Your task to perform on an android device: read, delete, or share a saved page in the chrome app Image 0: 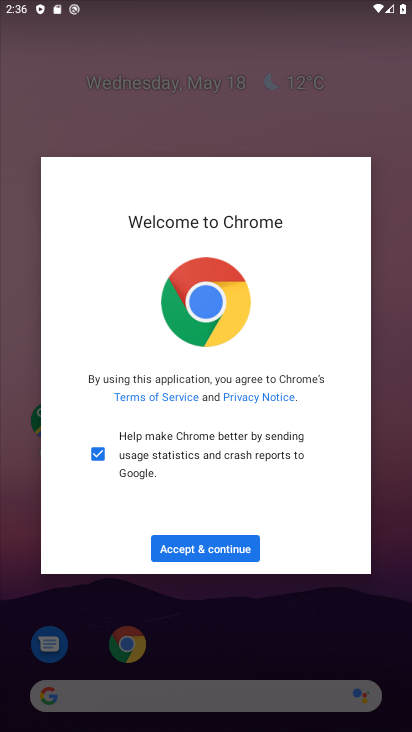
Step 0: click (216, 554)
Your task to perform on an android device: read, delete, or share a saved page in the chrome app Image 1: 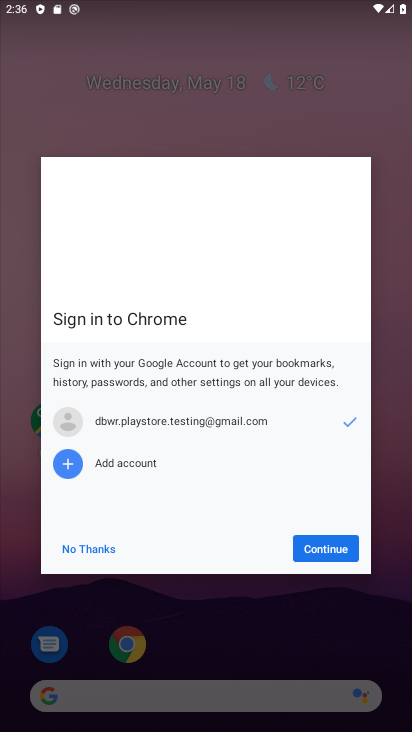
Step 1: click (319, 544)
Your task to perform on an android device: read, delete, or share a saved page in the chrome app Image 2: 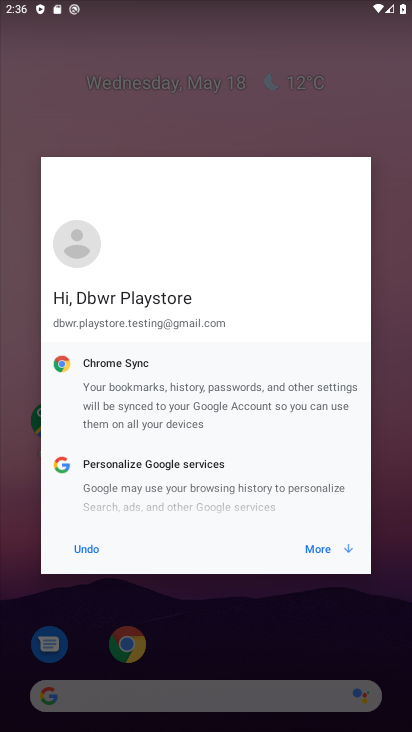
Step 2: click (318, 545)
Your task to perform on an android device: read, delete, or share a saved page in the chrome app Image 3: 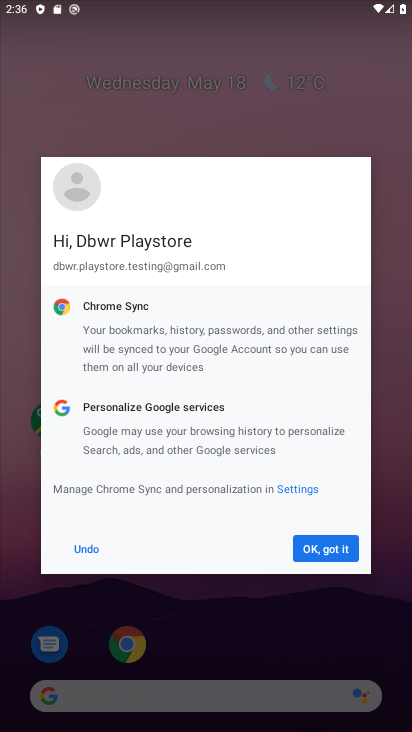
Step 3: click (318, 545)
Your task to perform on an android device: read, delete, or share a saved page in the chrome app Image 4: 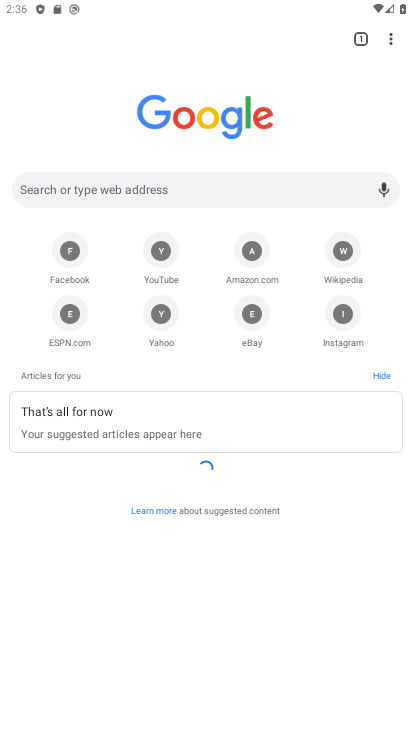
Step 4: click (390, 39)
Your task to perform on an android device: read, delete, or share a saved page in the chrome app Image 5: 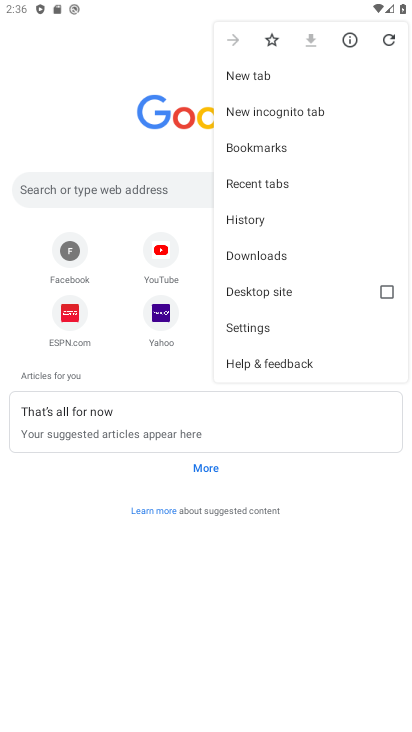
Step 5: click (238, 326)
Your task to perform on an android device: read, delete, or share a saved page in the chrome app Image 6: 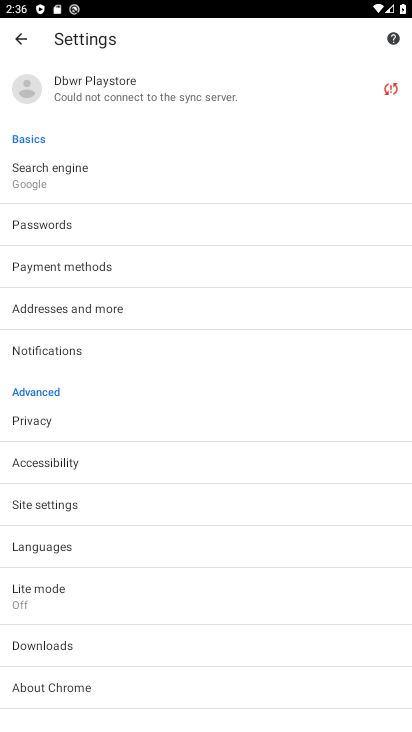
Step 6: click (47, 640)
Your task to perform on an android device: read, delete, or share a saved page in the chrome app Image 7: 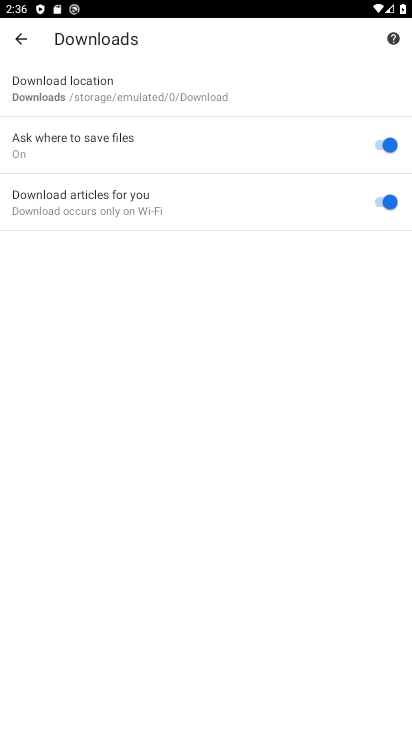
Step 7: task complete